Your task to perform on an android device: Search for Mexican restaurants on Maps Image 0: 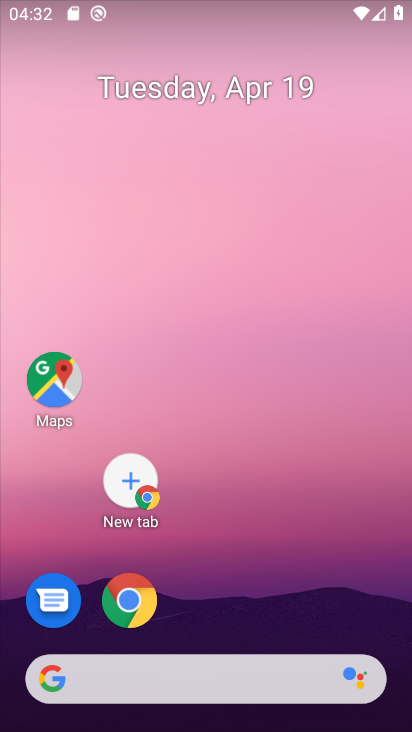
Step 0: click (70, 368)
Your task to perform on an android device: Search for Mexican restaurants on Maps Image 1: 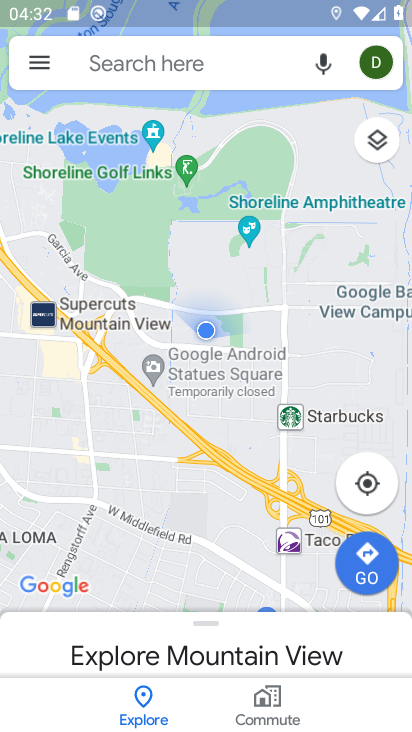
Step 1: click (139, 59)
Your task to perform on an android device: Search for Mexican restaurants on Maps Image 2: 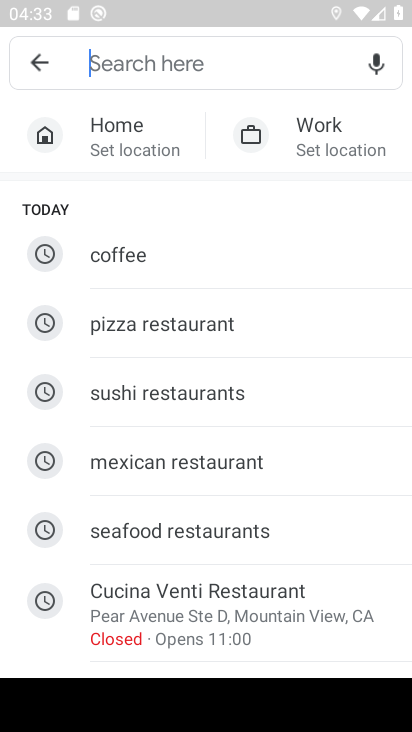
Step 2: click (134, 464)
Your task to perform on an android device: Search for Mexican restaurants on Maps Image 3: 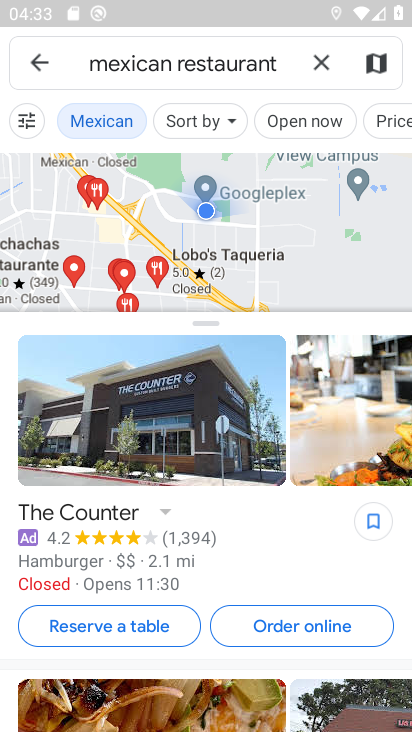
Step 3: task complete